Your task to perform on an android device: check out phone information Image 0: 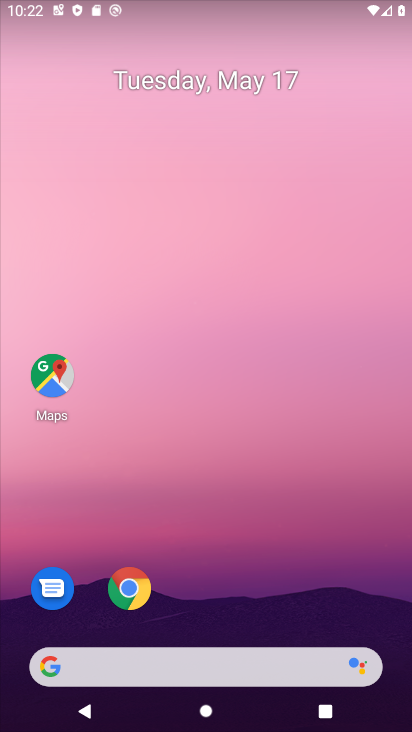
Step 0: drag from (184, 530) to (254, 110)
Your task to perform on an android device: check out phone information Image 1: 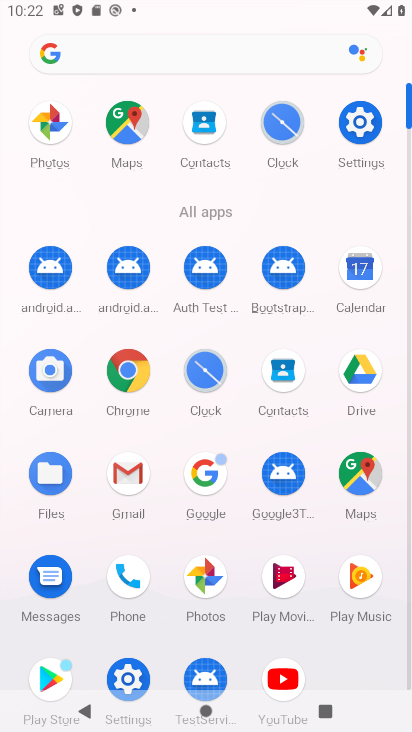
Step 1: click (352, 113)
Your task to perform on an android device: check out phone information Image 2: 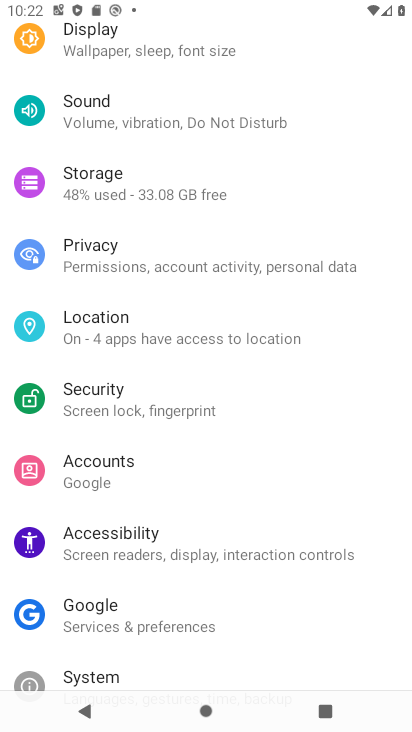
Step 2: drag from (162, 590) to (226, 96)
Your task to perform on an android device: check out phone information Image 3: 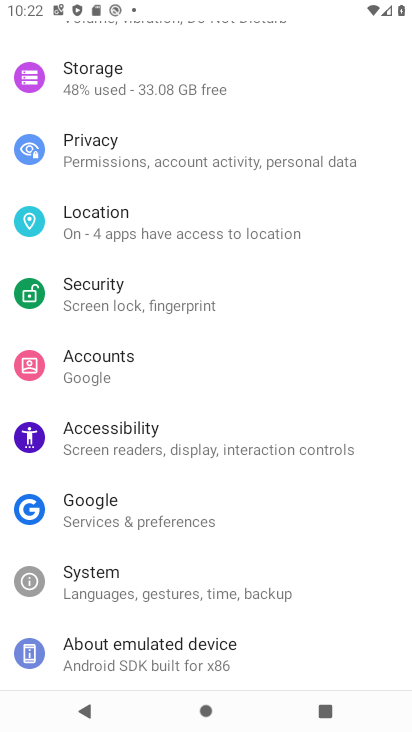
Step 3: click (195, 652)
Your task to perform on an android device: check out phone information Image 4: 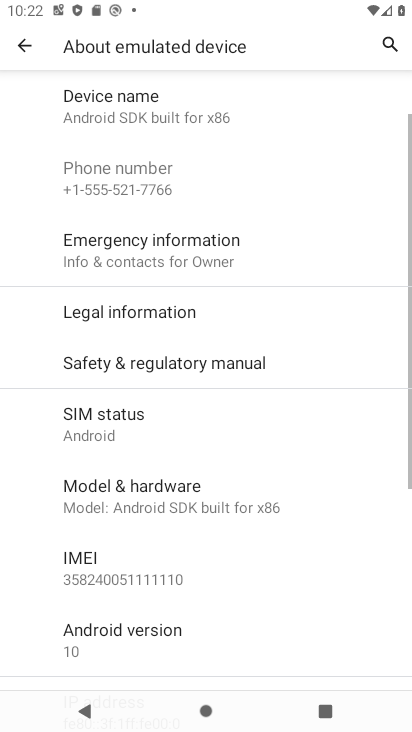
Step 4: task complete